Your task to perform on an android device: Open privacy settings Image 0: 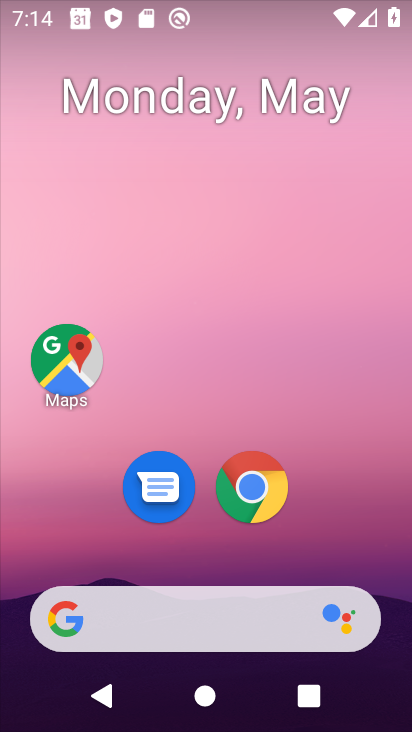
Step 0: press home button
Your task to perform on an android device: Open privacy settings Image 1: 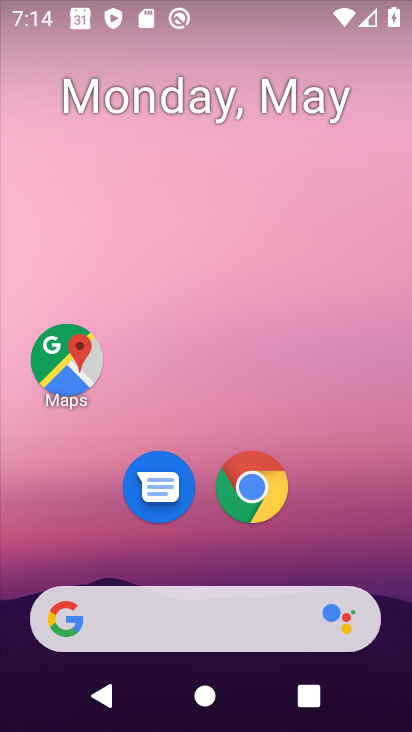
Step 1: drag from (266, 662) to (305, 64)
Your task to perform on an android device: Open privacy settings Image 2: 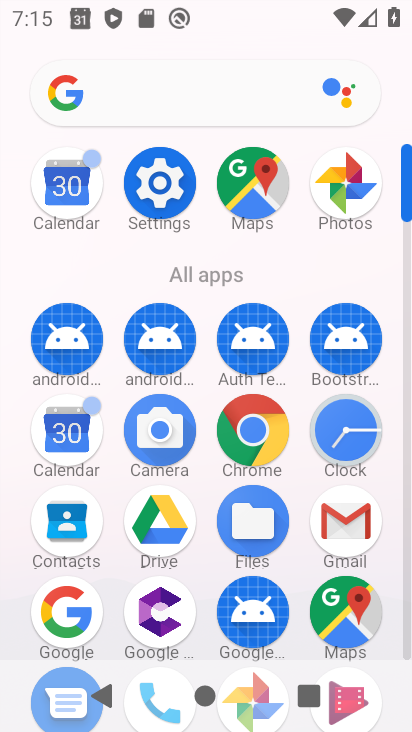
Step 2: click (143, 181)
Your task to perform on an android device: Open privacy settings Image 3: 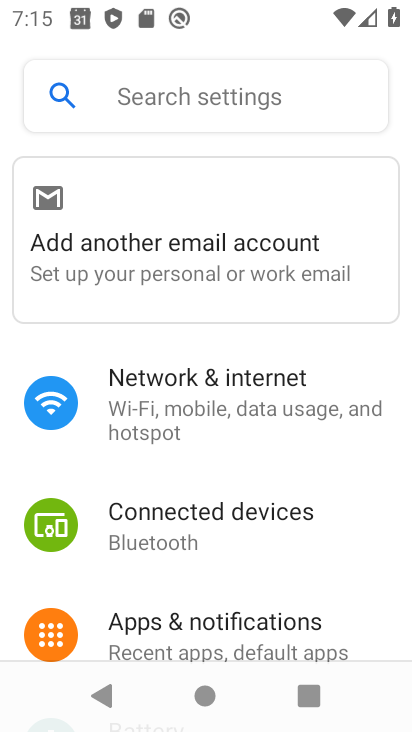
Step 3: click (169, 111)
Your task to perform on an android device: Open privacy settings Image 4: 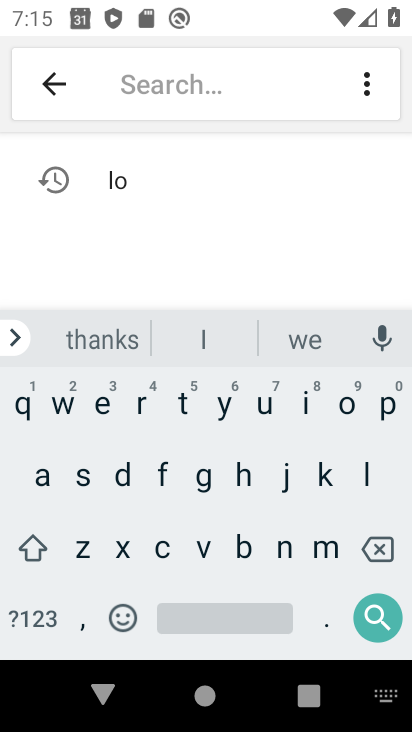
Step 4: click (386, 410)
Your task to perform on an android device: Open privacy settings Image 5: 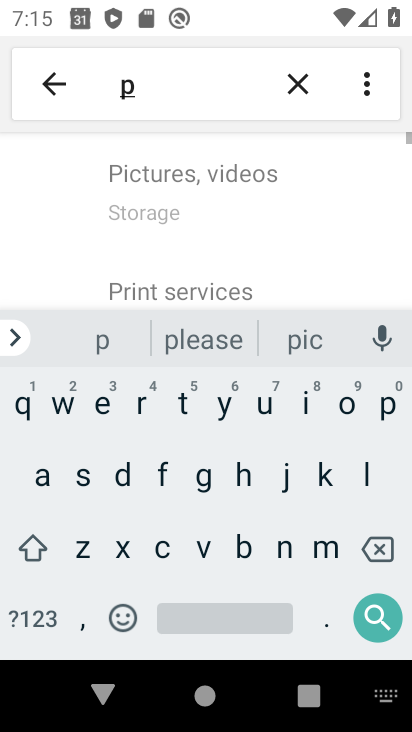
Step 5: click (139, 407)
Your task to perform on an android device: Open privacy settings Image 6: 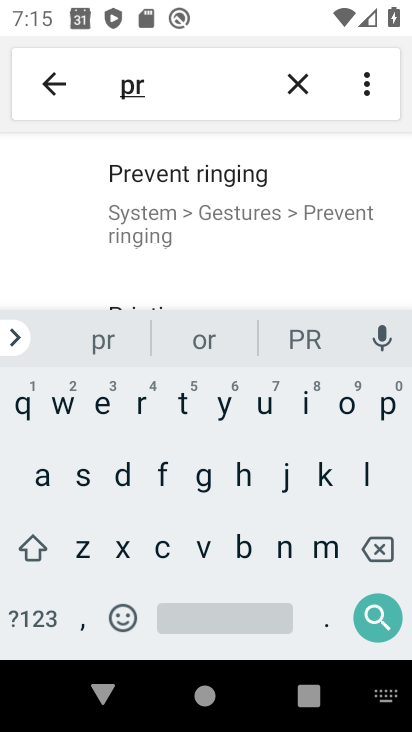
Step 6: click (308, 413)
Your task to perform on an android device: Open privacy settings Image 7: 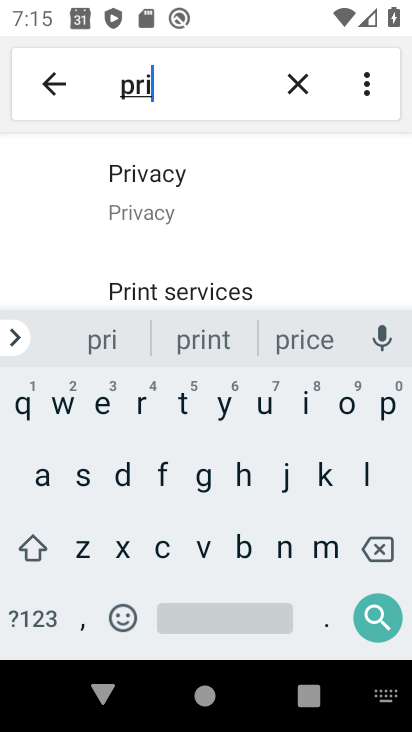
Step 7: click (176, 200)
Your task to perform on an android device: Open privacy settings Image 8: 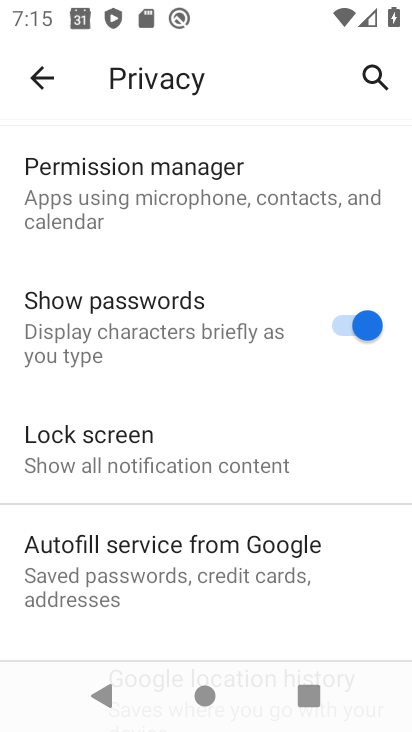
Step 8: task complete